Your task to perform on an android device: Open the calendar app, open the side menu, and click the "Day" option Image 0: 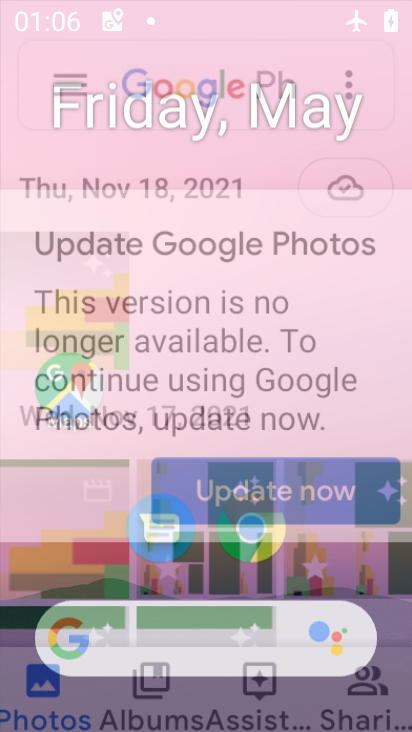
Step 0: drag from (342, 463) to (337, 166)
Your task to perform on an android device: Open the calendar app, open the side menu, and click the "Day" option Image 1: 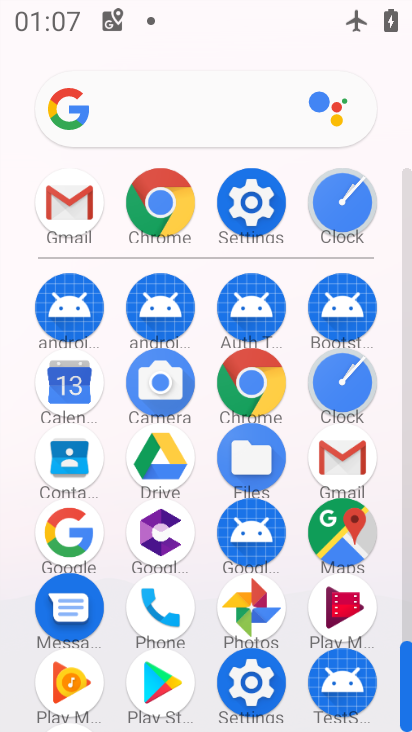
Step 1: click (96, 380)
Your task to perform on an android device: Open the calendar app, open the side menu, and click the "Day" option Image 2: 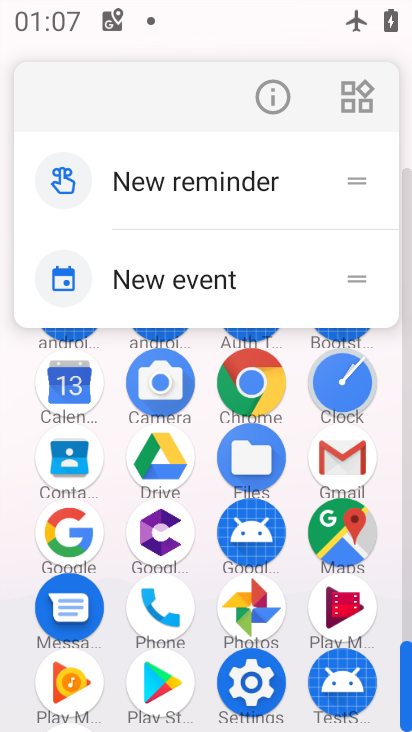
Step 2: click (59, 358)
Your task to perform on an android device: Open the calendar app, open the side menu, and click the "Day" option Image 3: 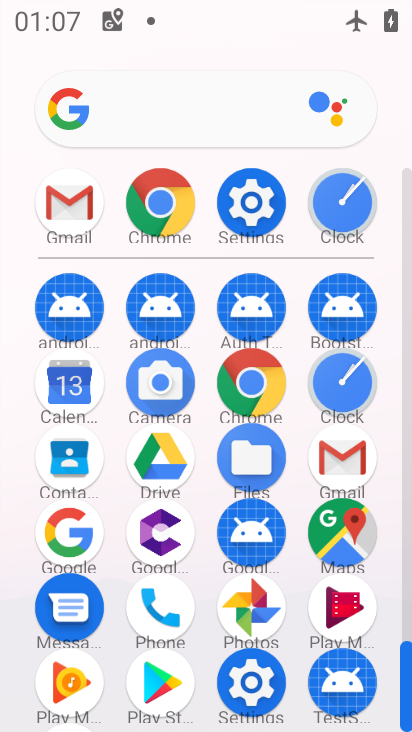
Step 3: click (63, 371)
Your task to perform on an android device: Open the calendar app, open the side menu, and click the "Day" option Image 4: 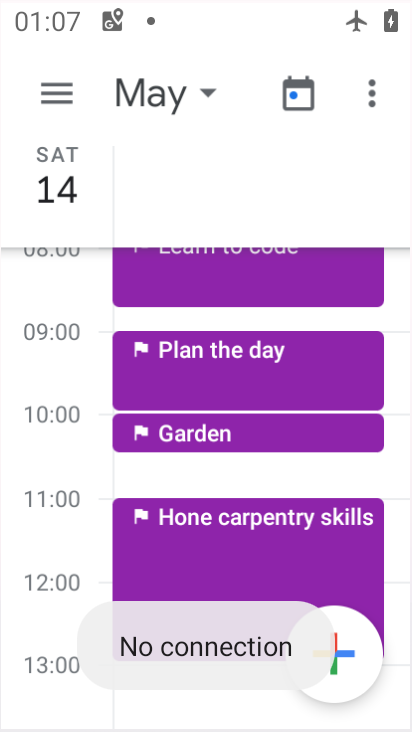
Step 4: click (63, 371)
Your task to perform on an android device: Open the calendar app, open the side menu, and click the "Day" option Image 5: 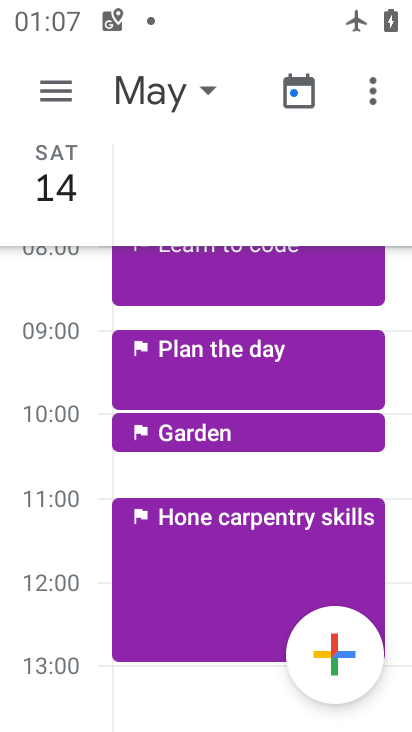
Step 5: click (37, 98)
Your task to perform on an android device: Open the calendar app, open the side menu, and click the "Day" option Image 6: 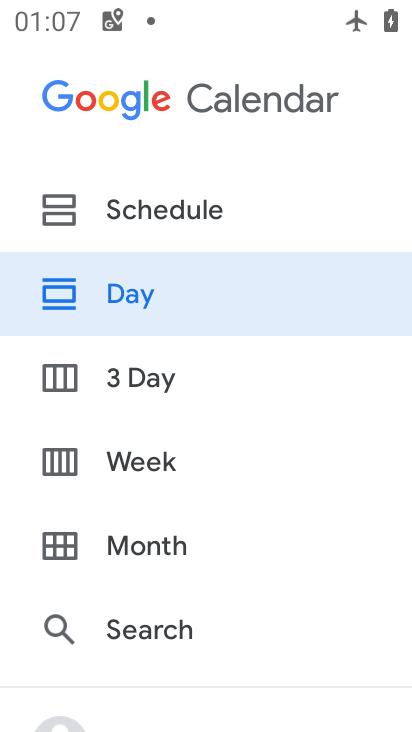
Step 6: click (134, 277)
Your task to perform on an android device: Open the calendar app, open the side menu, and click the "Day" option Image 7: 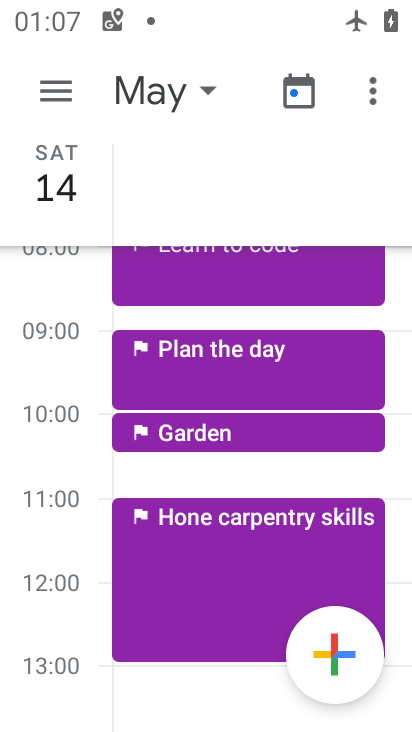
Step 7: task complete